Your task to perform on an android device: see tabs open on other devices in the chrome app Image 0: 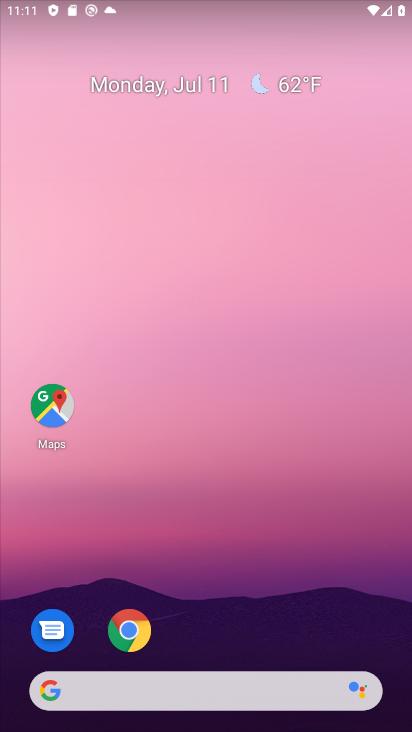
Step 0: drag from (205, 696) to (344, 7)
Your task to perform on an android device: see tabs open on other devices in the chrome app Image 1: 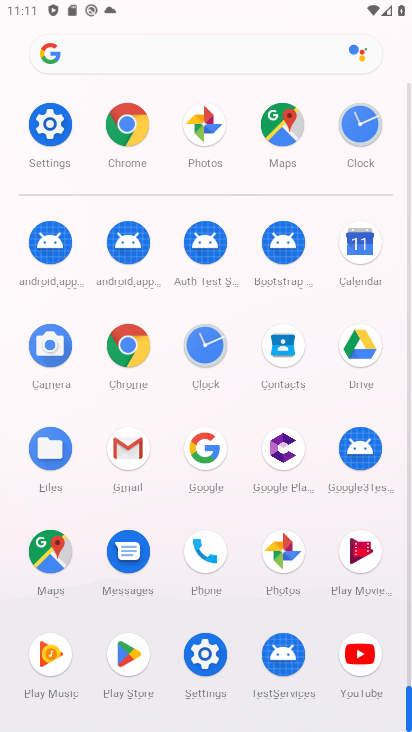
Step 1: click (132, 338)
Your task to perform on an android device: see tabs open on other devices in the chrome app Image 2: 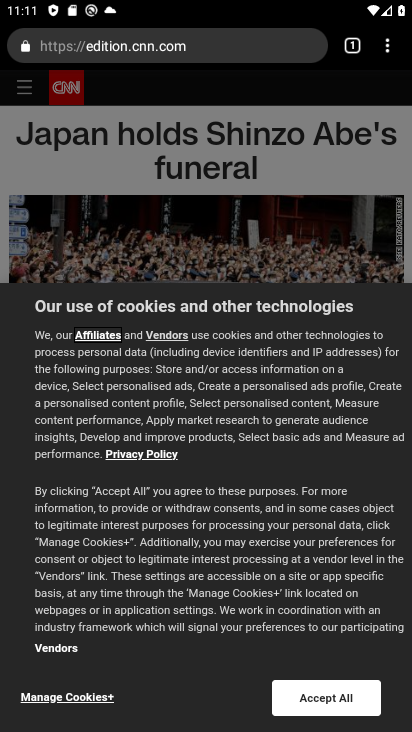
Step 2: task complete